Your task to perform on an android device: change keyboard looks Image 0: 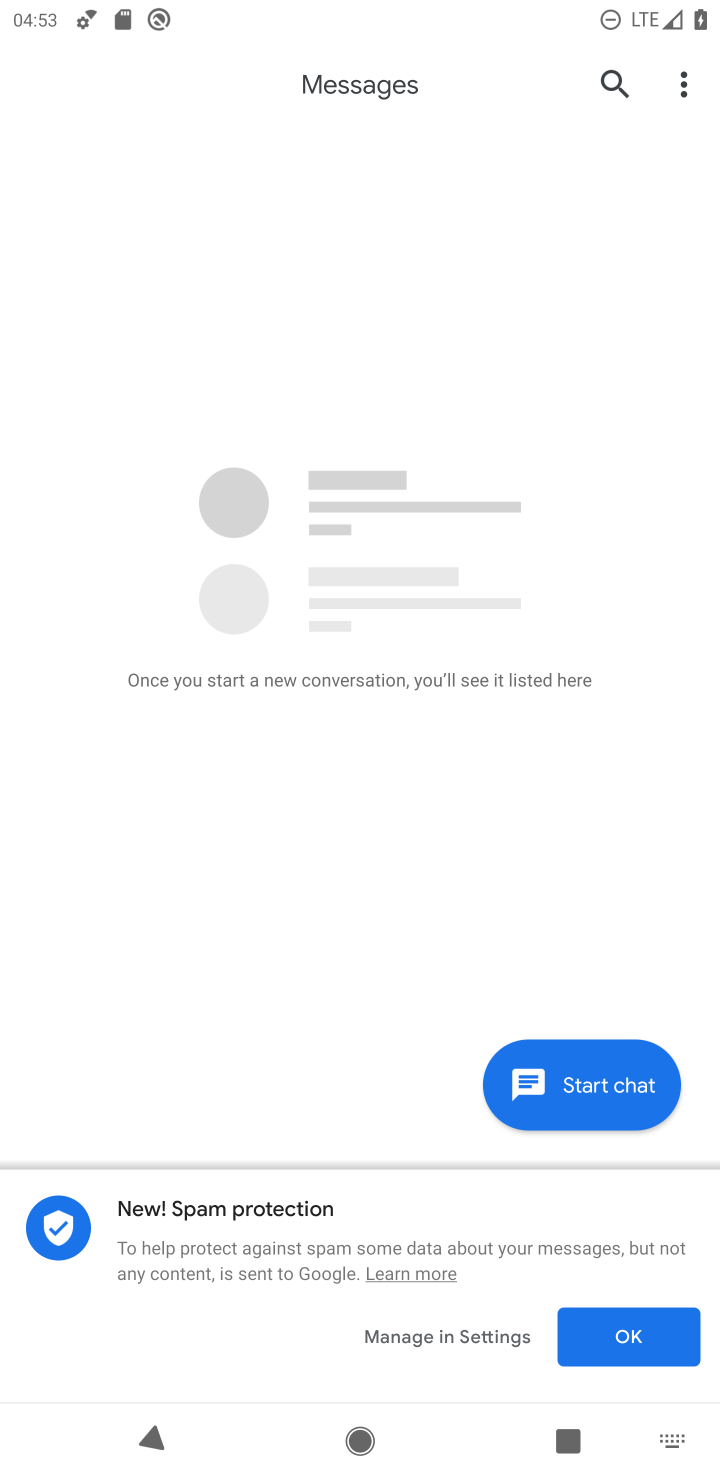
Step 0: press home button
Your task to perform on an android device: change keyboard looks Image 1: 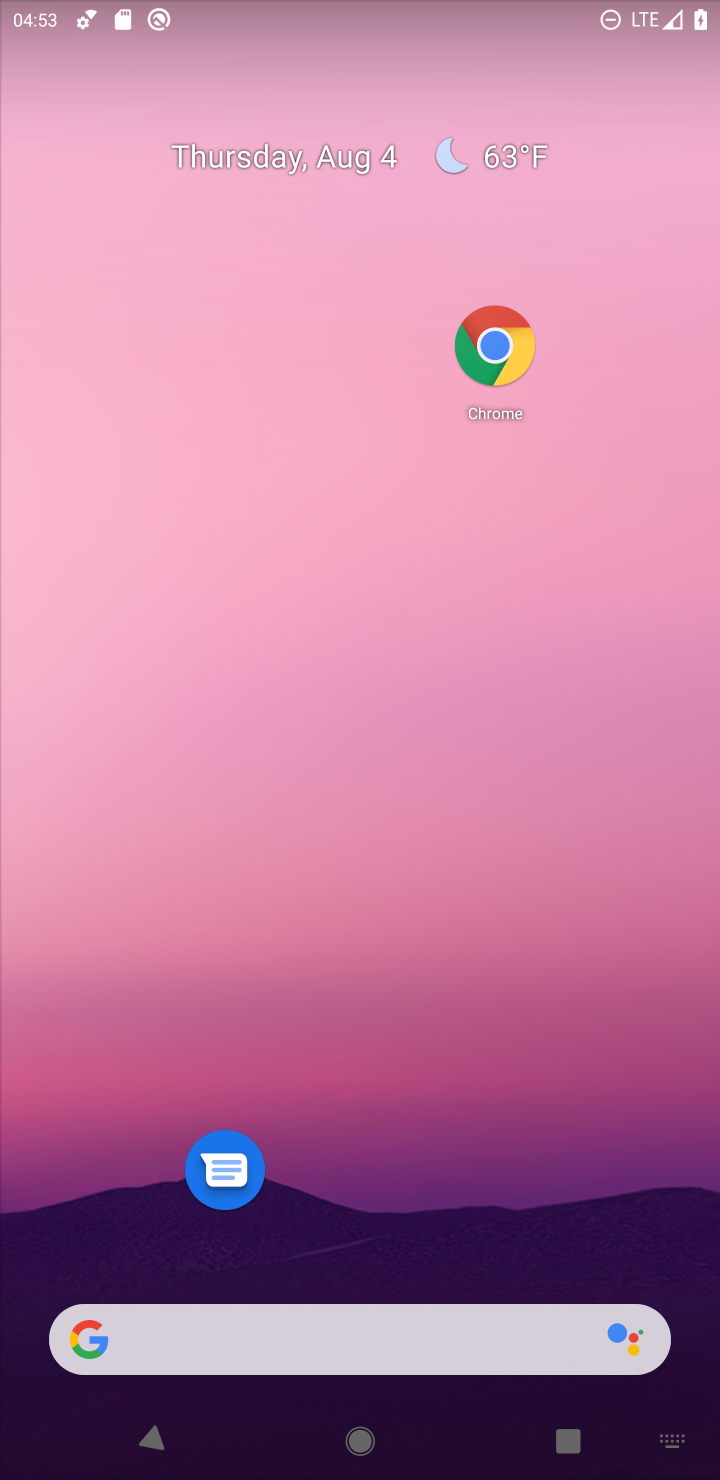
Step 1: drag from (557, 1211) to (523, 136)
Your task to perform on an android device: change keyboard looks Image 2: 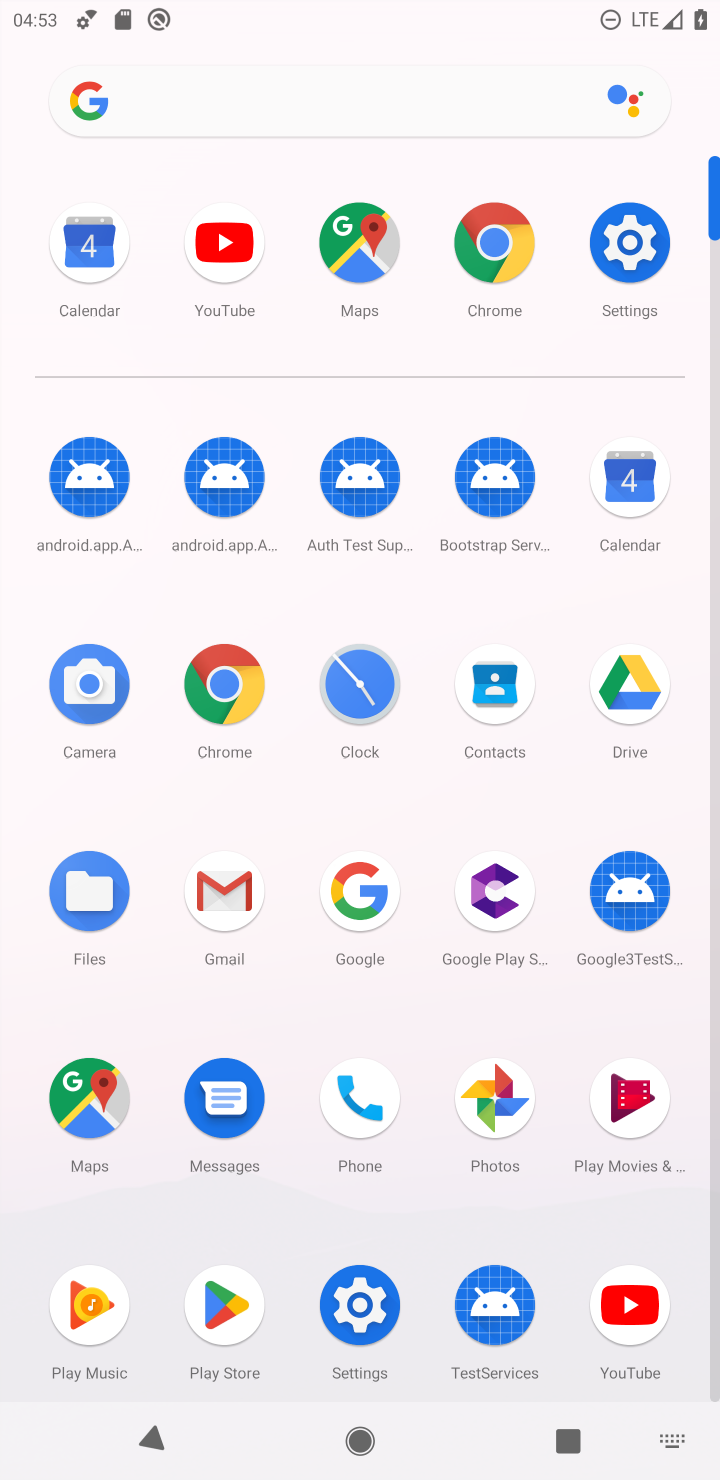
Step 2: click (615, 262)
Your task to perform on an android device: change keyboard looks Image 3: 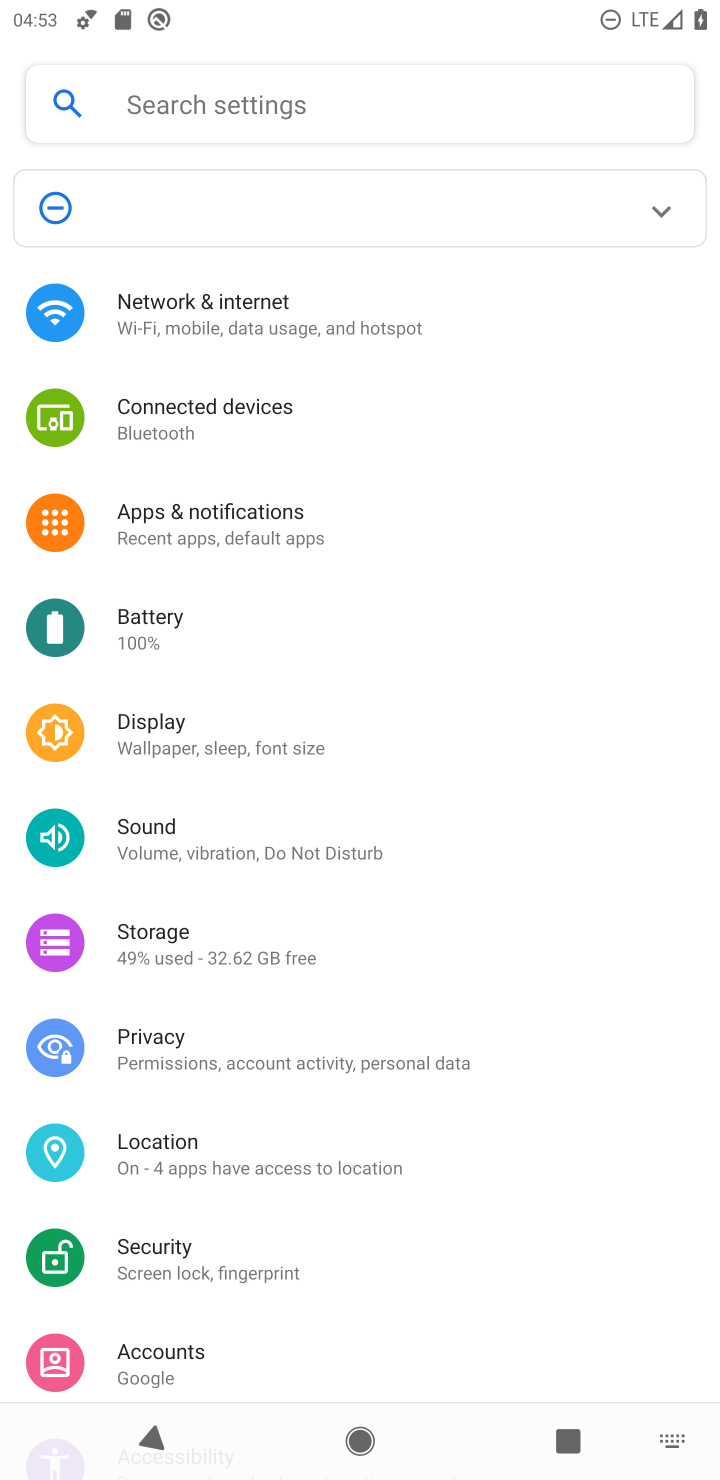
Step 3: drag from (498, 1317) to (426, 442)
Your task to perform on an android device: change keyboard looks Image 4: 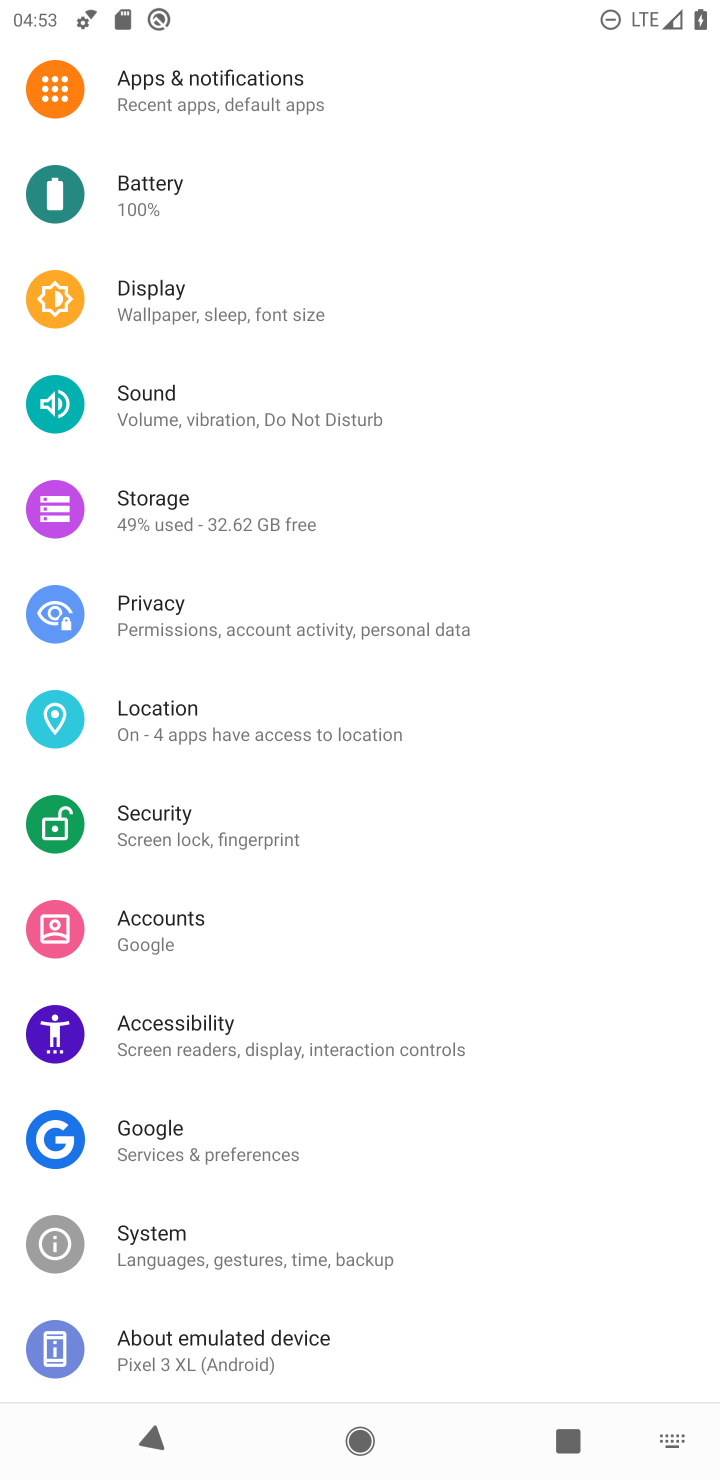
Step 4: click (377, 1246)
Your task to perform on an android device: change keyboard looks Image 5: 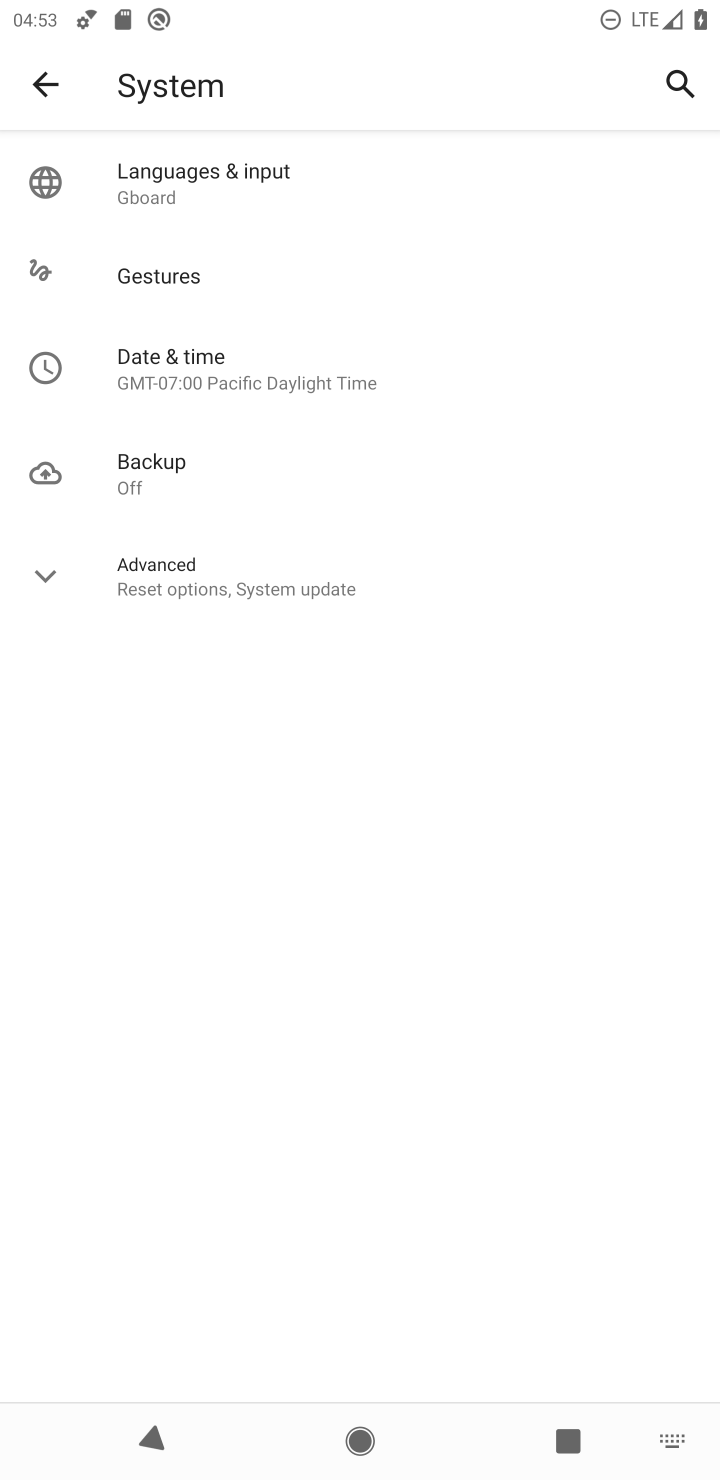
Step 5: click (282, 186)
Your task to perform on an android device: change keyboard looks Image 6: 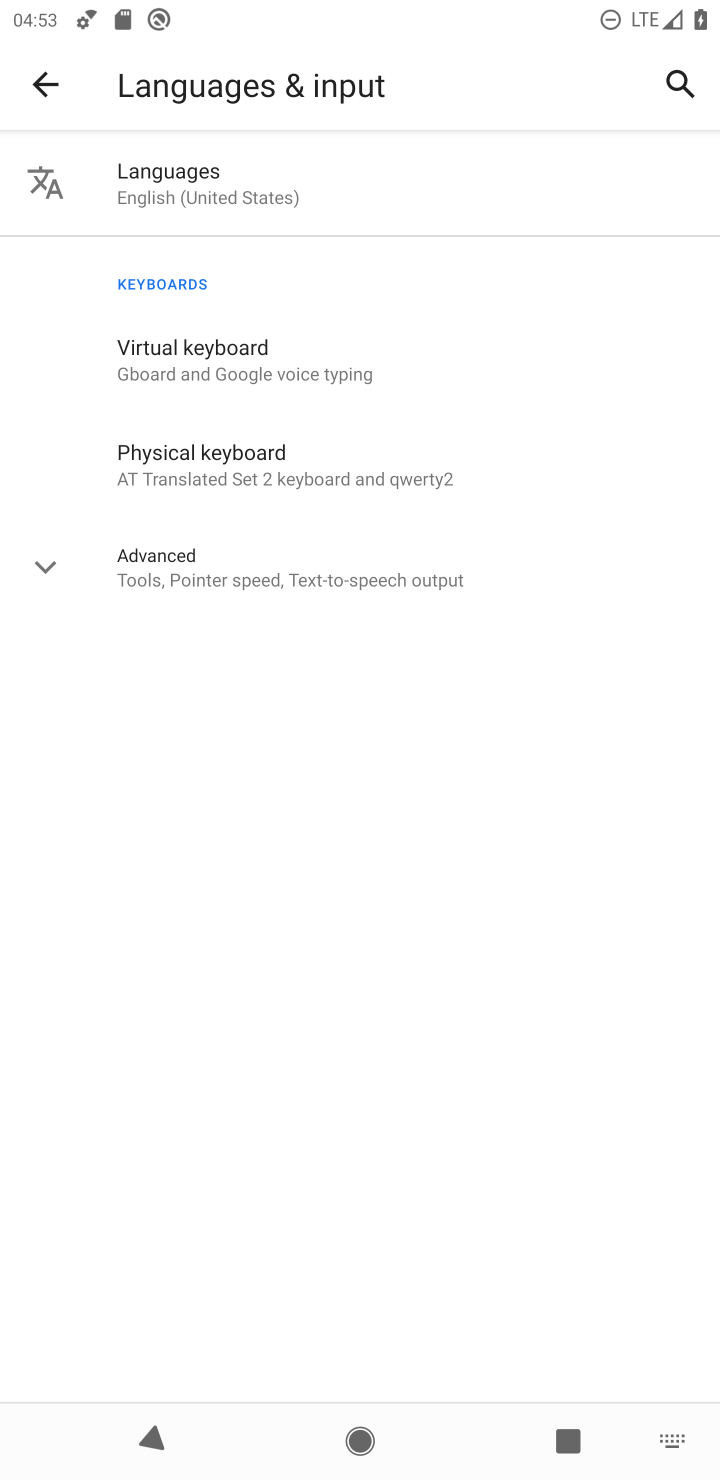
Step 6: click (256, 342)
Your task to perform on an android device: change keyboard looks Image 7: 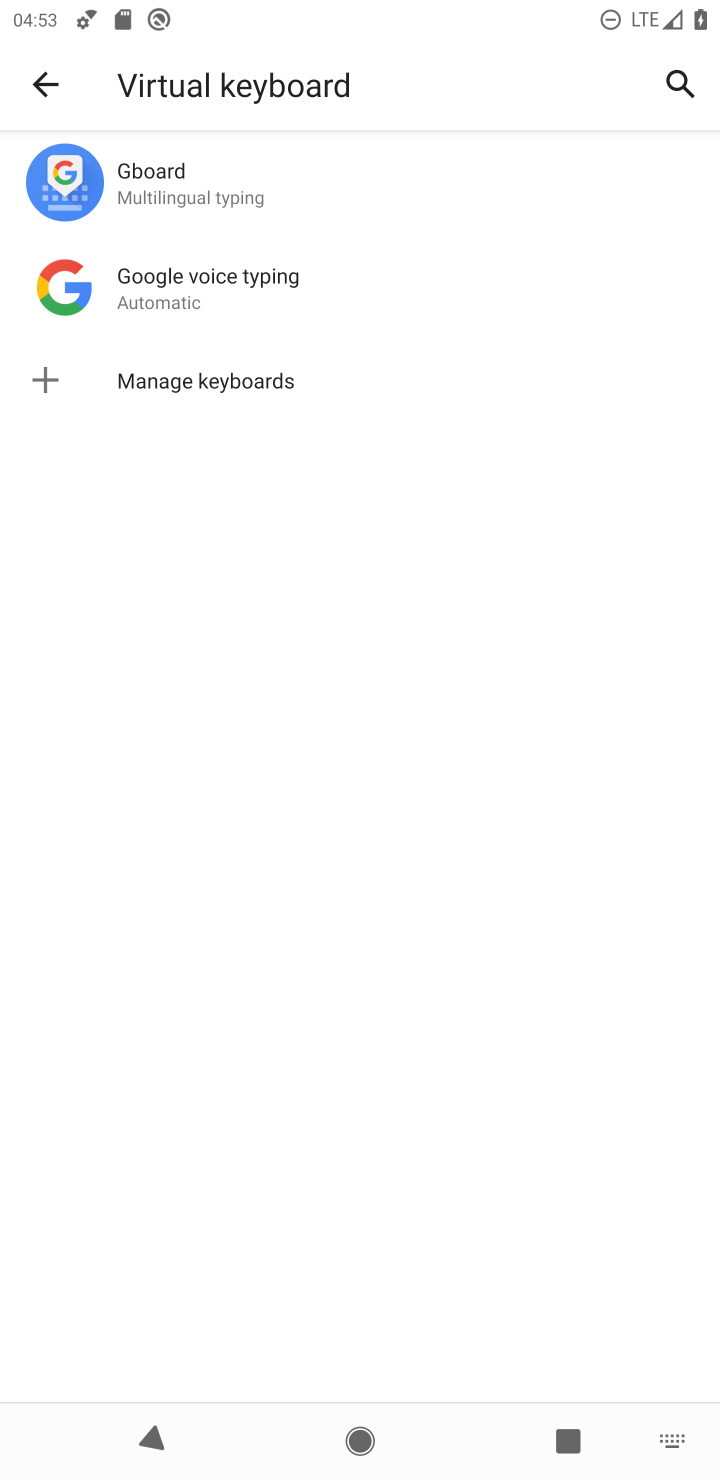
Step 7: click (240, 158)
Your task to perform on an android device: change keyboard looks Image 8: 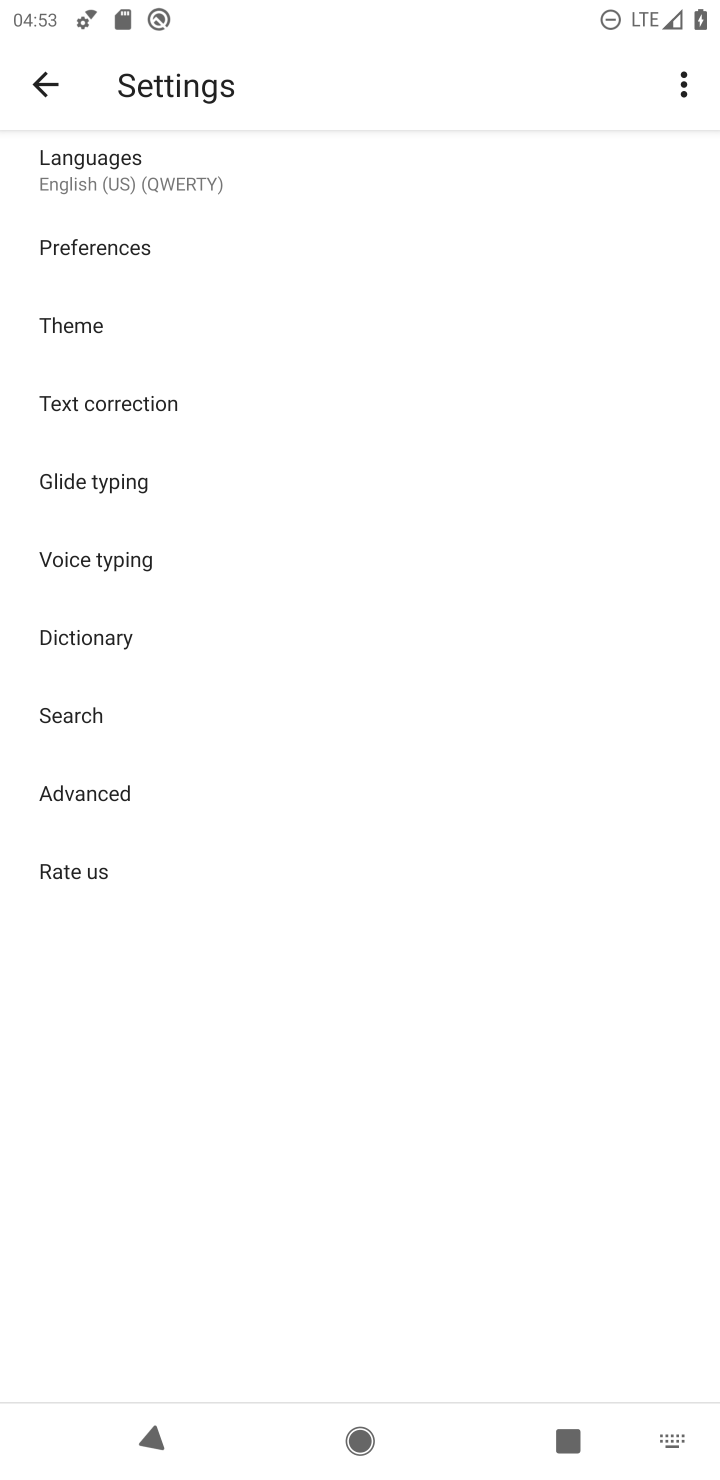
Step 8: click (286, 328)
Your task to perform on an android device: change keyboard looks Image 9: 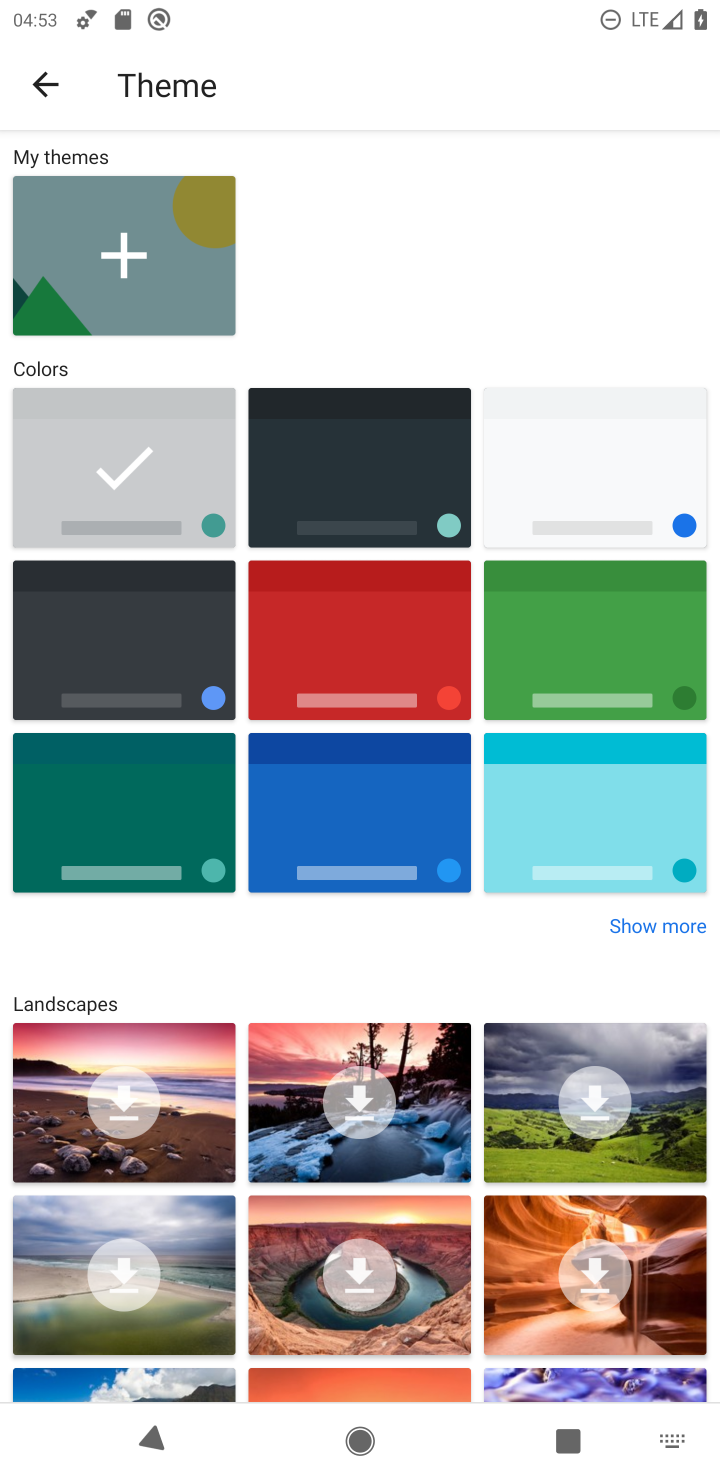
Step 9: click (340, 709)
Your task to perform on an android device: change keyboard looks Image 10: 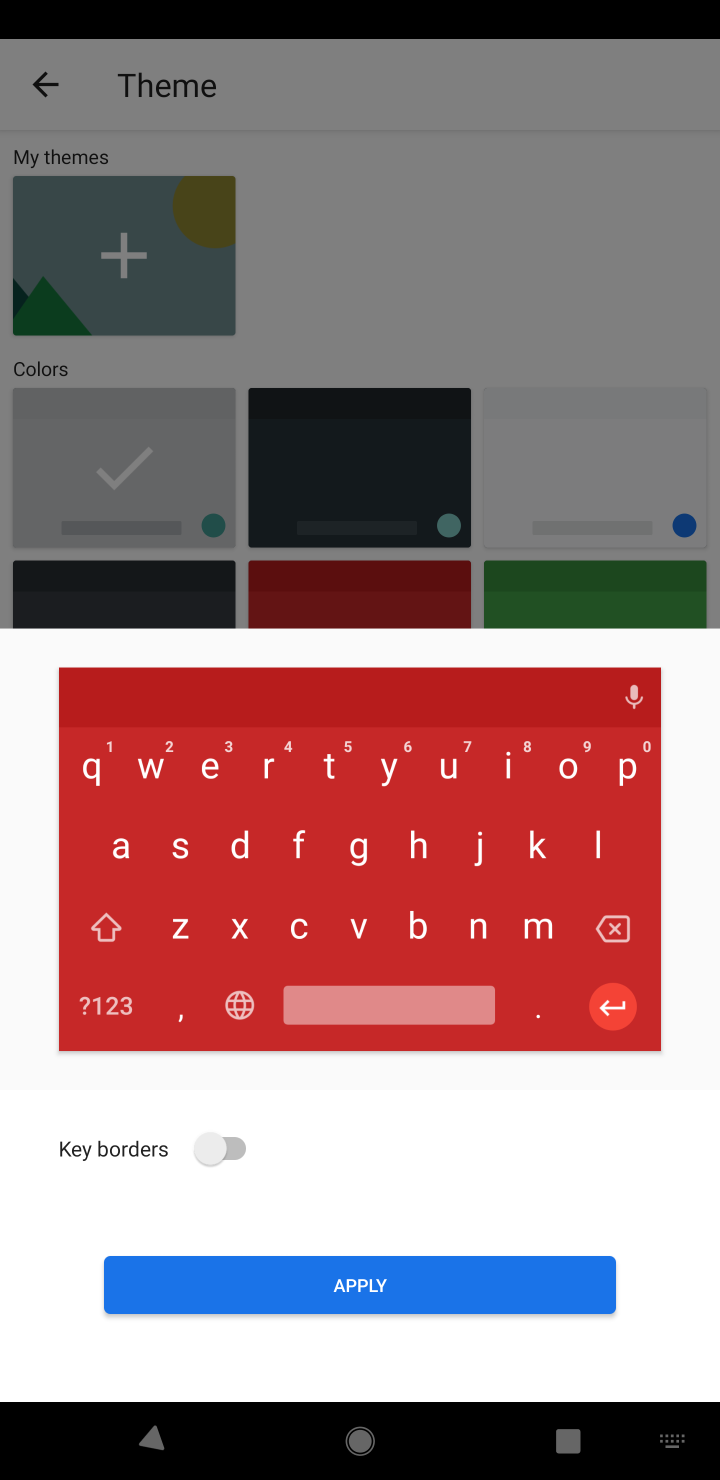
Step 10: click (511, 1280)
Your task to perform on an android device: change keyboard looks Image 11: 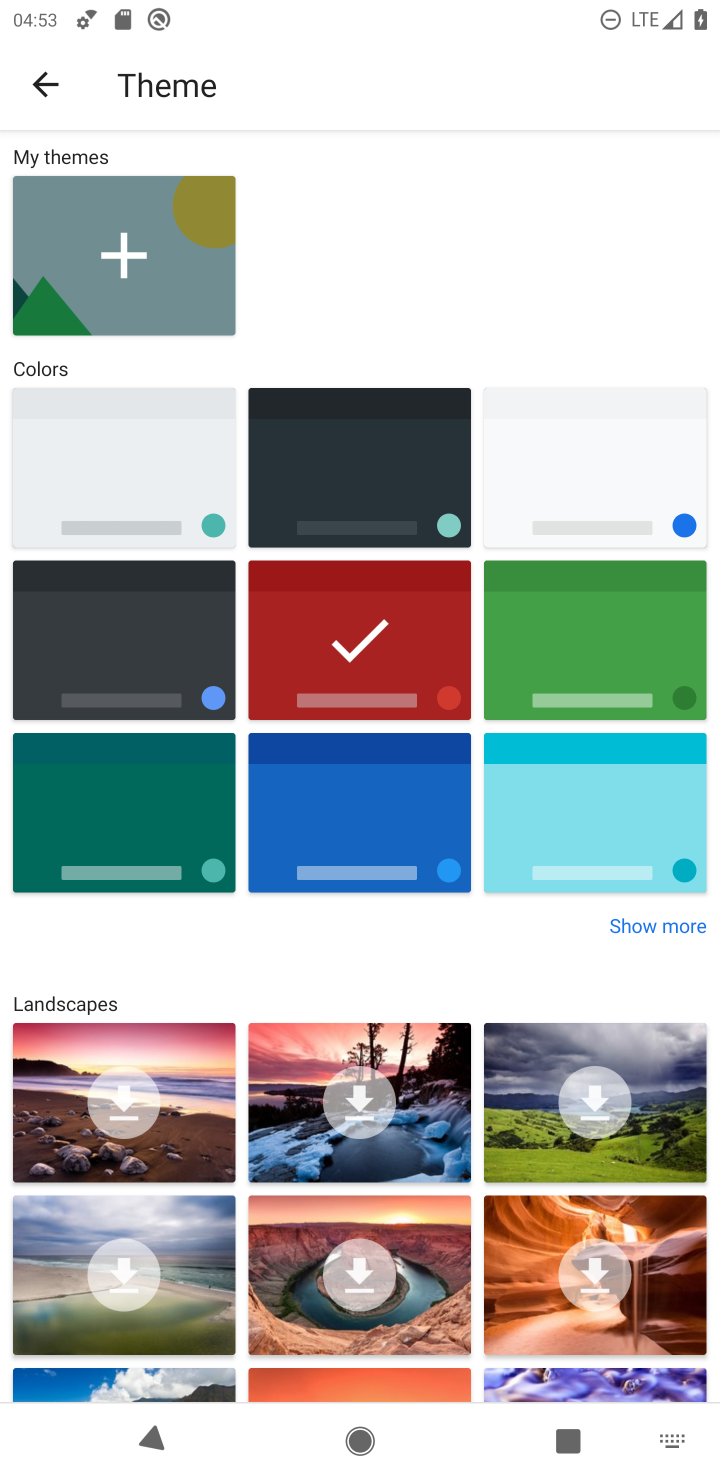
Step 11: task complete